Your task to perform on an android device: Check the news Image 0: 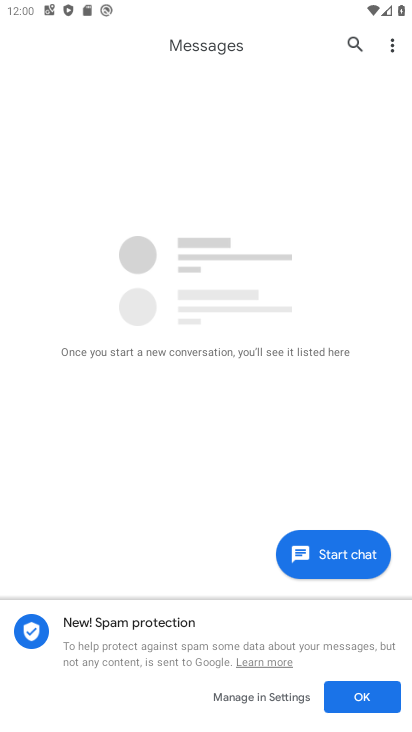
Step 0: press home button
Your task to perform on an android device: Check the news Image 1: 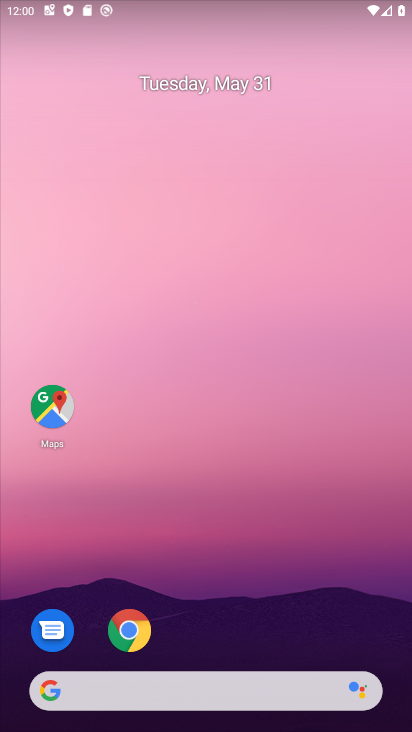
Step 1: click (49, 688)
Your task to perform on an android device: Check the news Image 2: 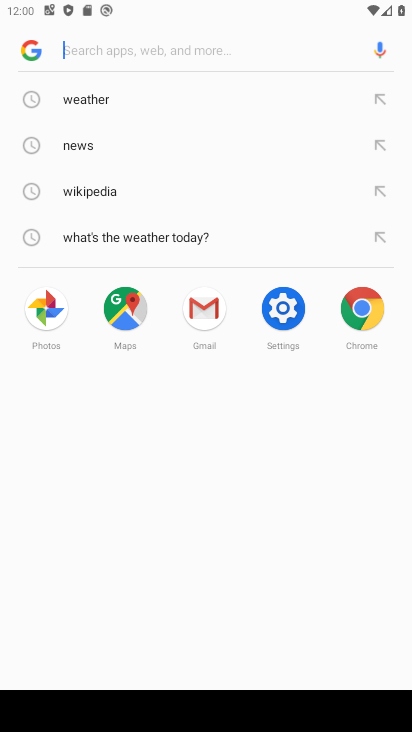
Step 2: click (80, 142)
Your task to perform on an android device: Check the news Image 3: 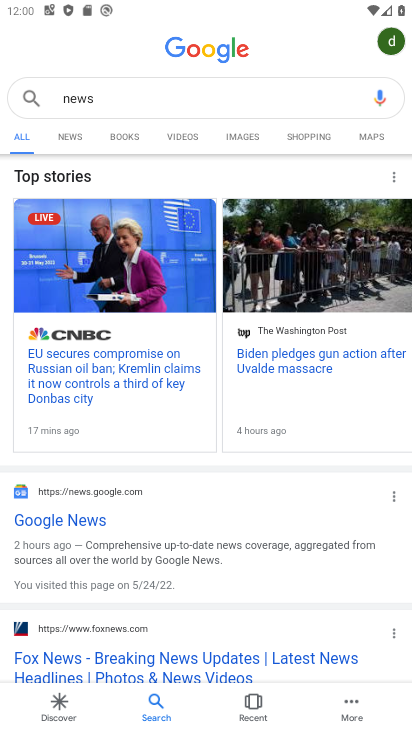
Step 3: click (68, 138)
Your task to perform on an android device: Check the news Image 4: 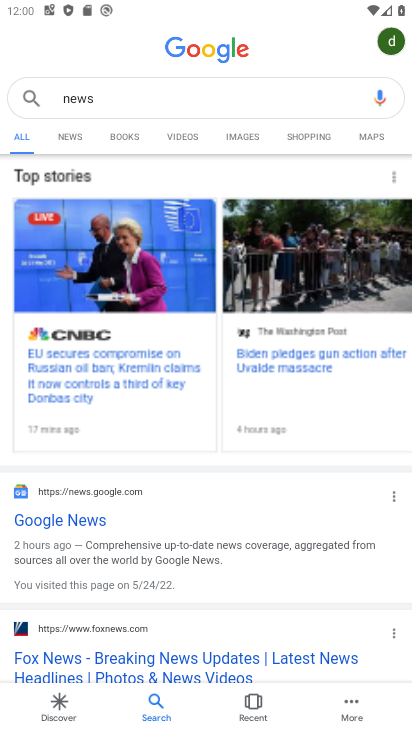
Step 4: click (72, 140)
Your task to perform on an android device: Check the news Image 5: 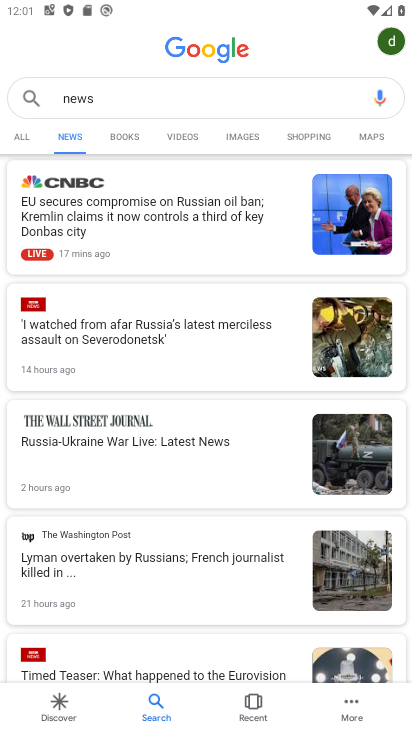
Step 5: task complete